Your task to perform on an android device: What is the speed of a bicycle? Image 0: 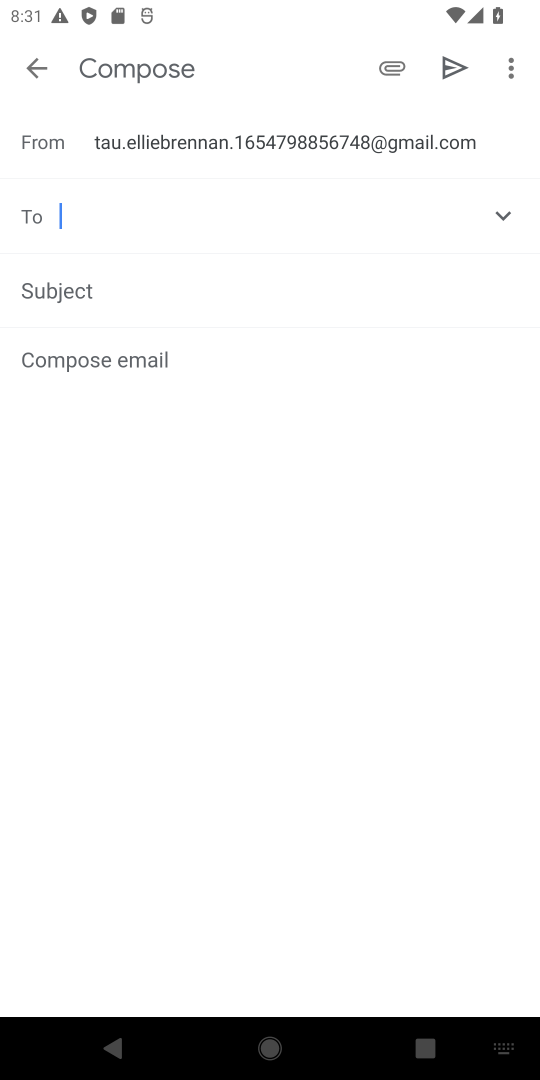
Step 0: press home button
Your task to perform on an android device: What is the speed of a bicycle? Image 1: 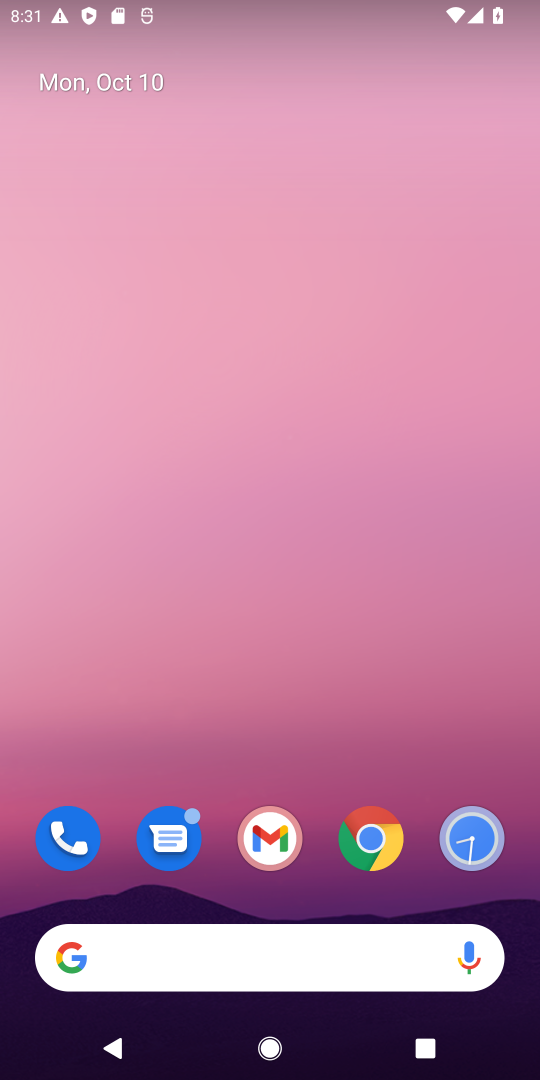
Step 1: drag from (305, 836) to (348, 67)
Your task to perform on an android device: What is the speed of a bicycle? Image 2: 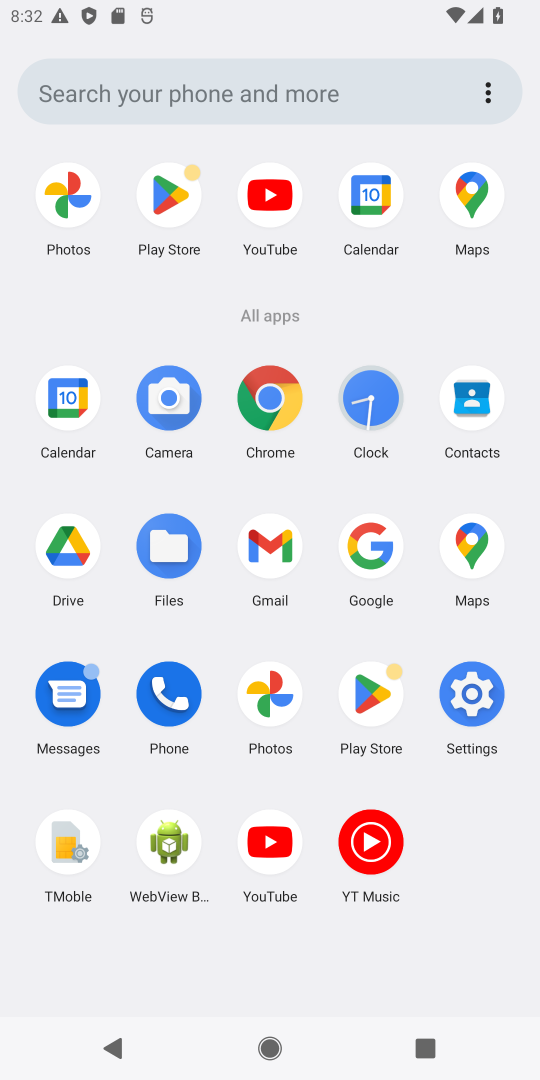
Step 2: click (264, 396)
Your task to perform on an android device: What is the speed of a bicycle? Image 3: 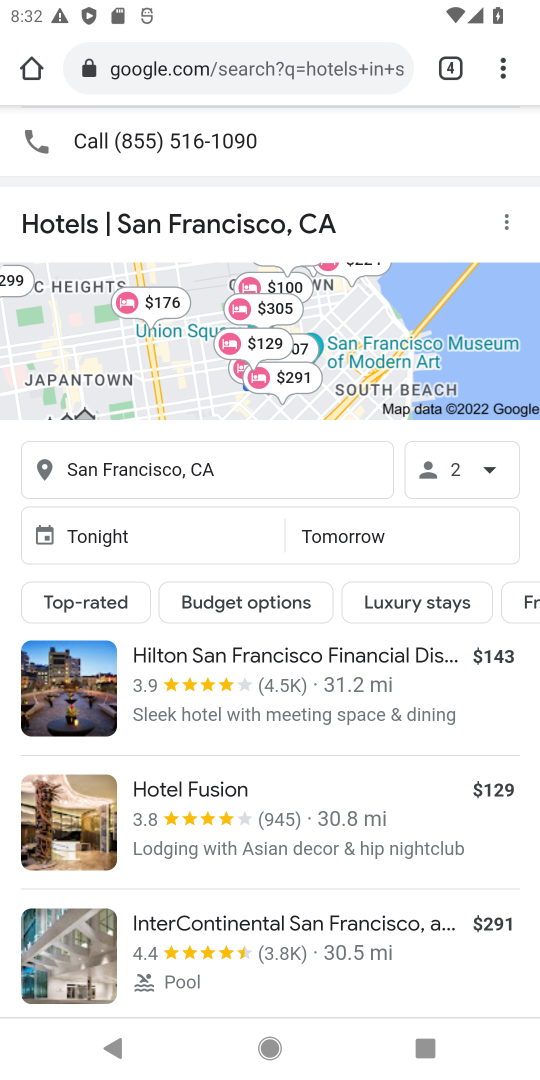
Step 3: drag from (255, 209) to (222, 585)
Your task to perform on an android device: What is the speed of a bicycle? Image 4: 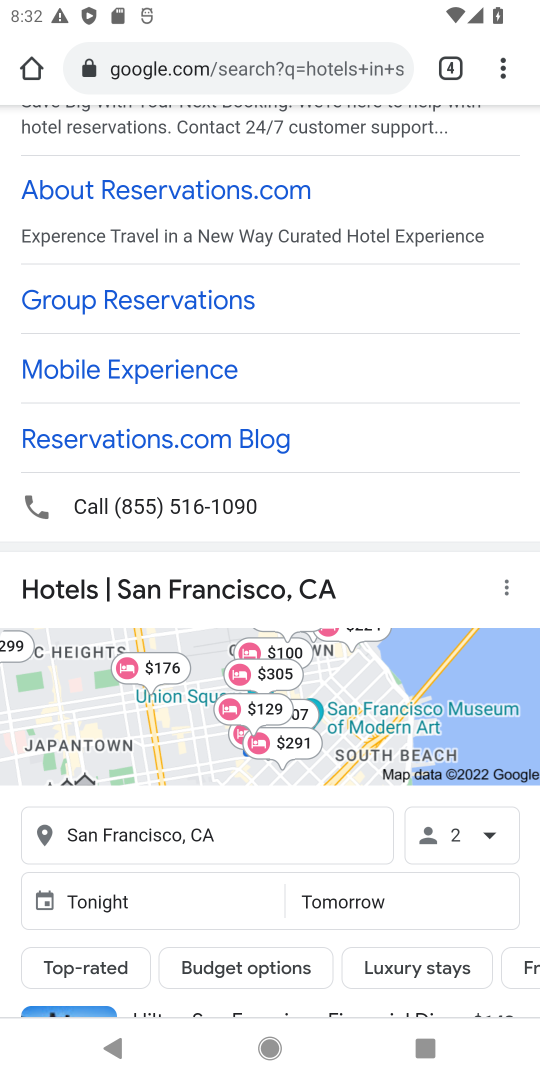
Step 4: drag from (297, 146) to (285, 600)
Your task to perform on an android device: What is the speed of a bicycle? Image 5: 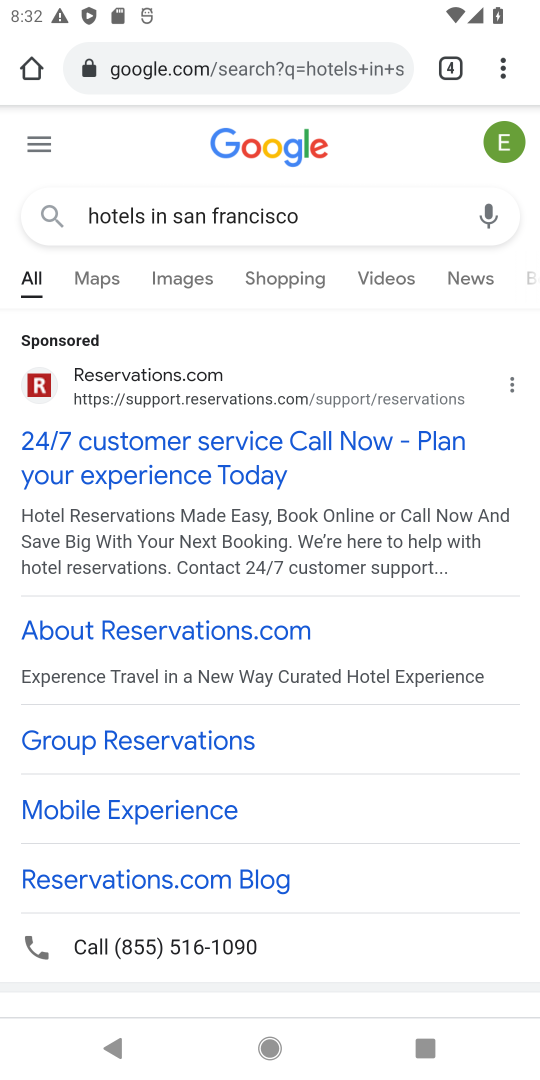
Step 5: click (320, 212)
Your task to perform on an android device: What is the speed of a bicycle? Image 6: 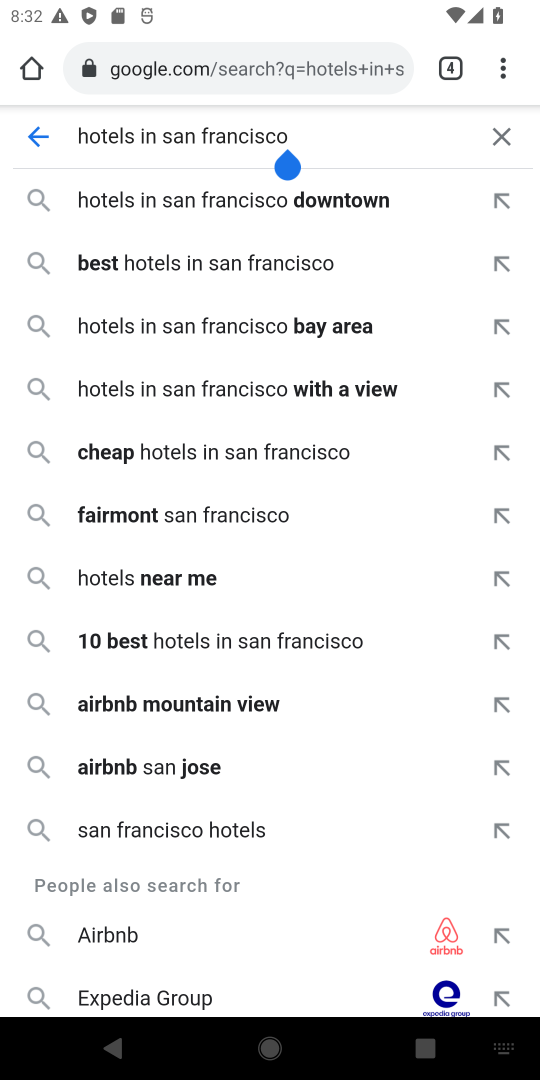
Step 6: click (506, 129)
Your task to perform on an android device: What is the speed of a bicycle? Image 7: 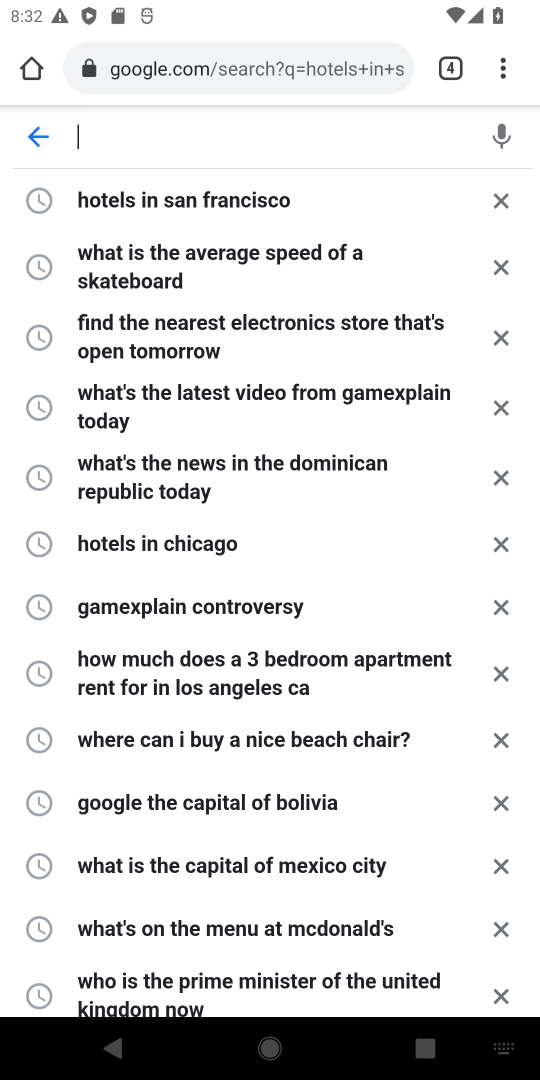
Step 7: click (242, 147)
Your task to perform on an android device: What is the speed of a bicycle? Image 8: 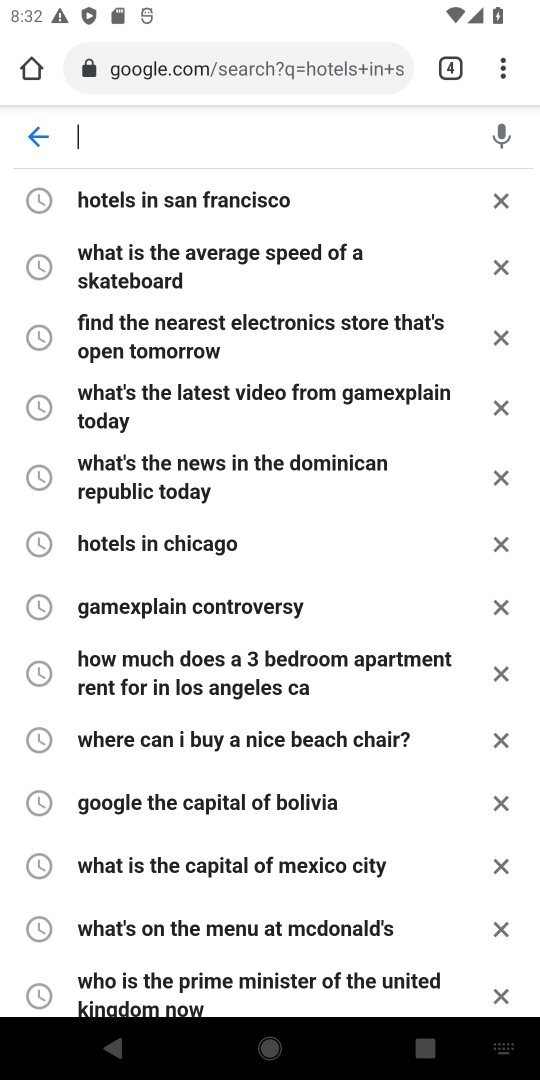
Step 8: type "speed of a bicycle?"
Your task to perform on an android device: What is the speed of a bicycle? Image 9: 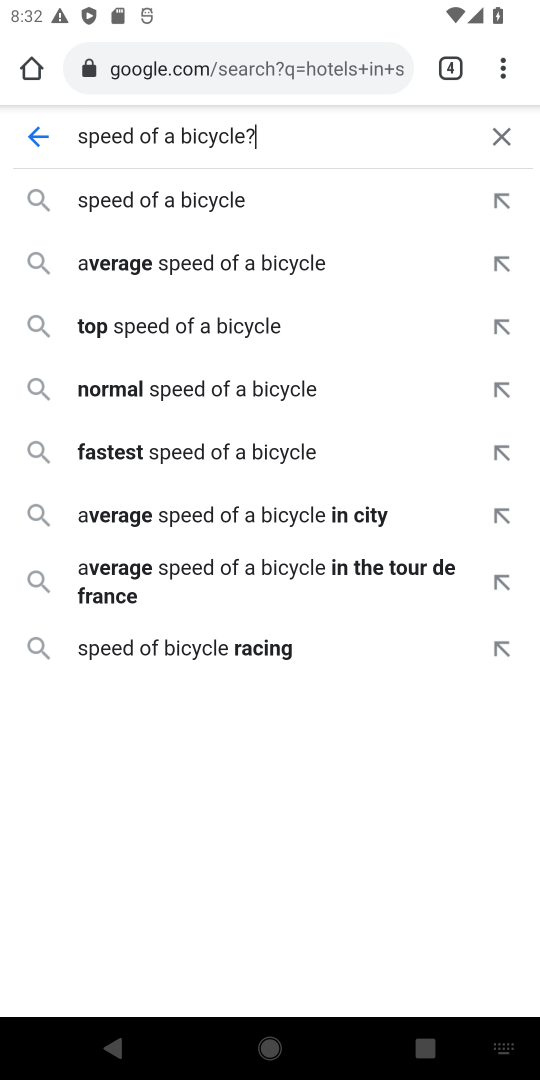
Step 9: type ""
Your task to perform on an android device: What is the speed of a bicycle? Image 10: 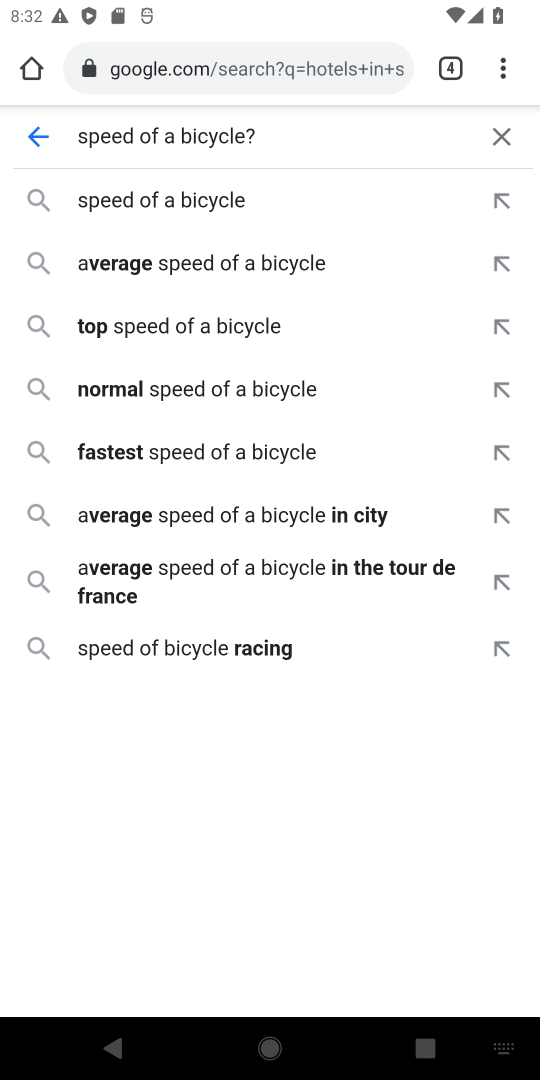
Step 10: click (227, 203)
Your task to perform on an android device: What is the speed of a bicycle? Image 11: 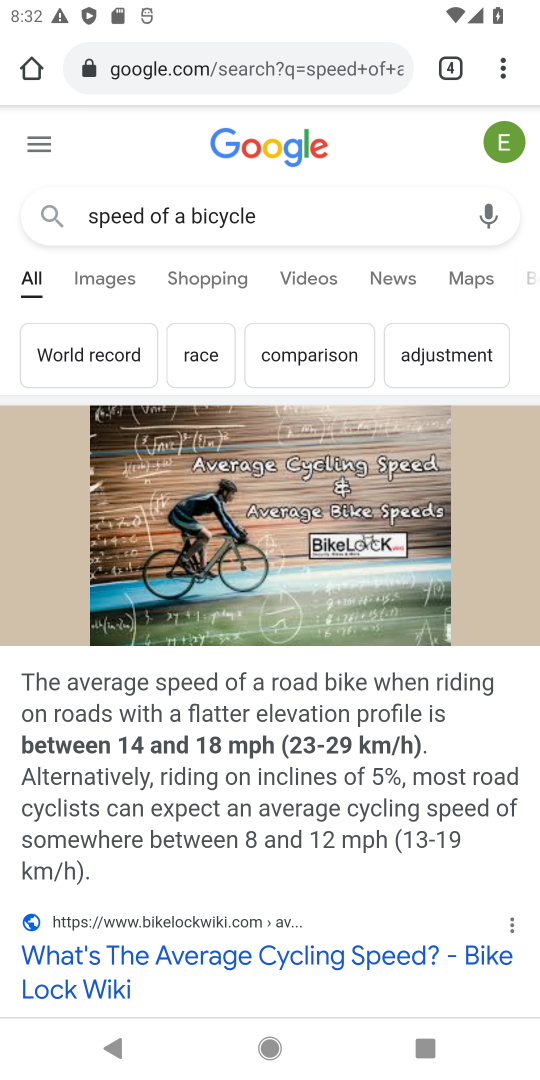
Step 11: task complete